Your task to perform on an android device: Go to Google maps Image 0: 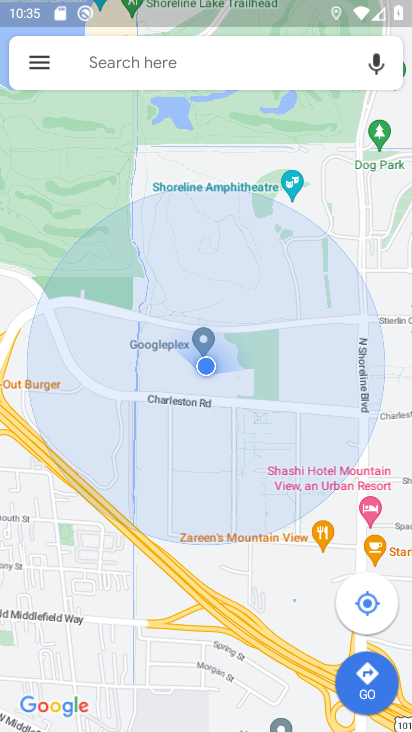
Step 0: press home button
Your task to perform on an android device: Go to Google maps Image 1: 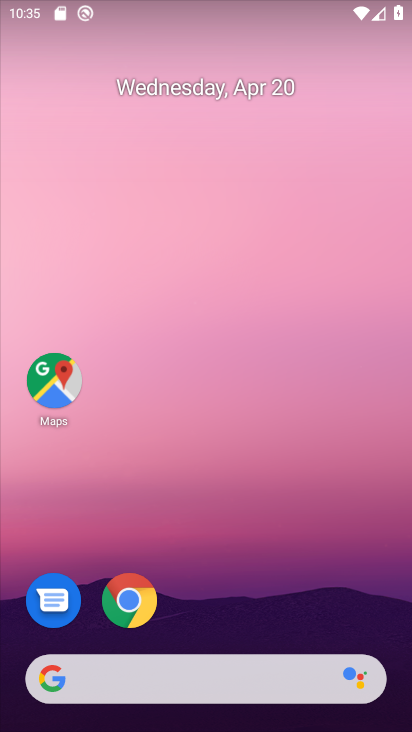
Step 1: click (44, 377)
Your task to perform on an android device: Go to Google maps Image 2: 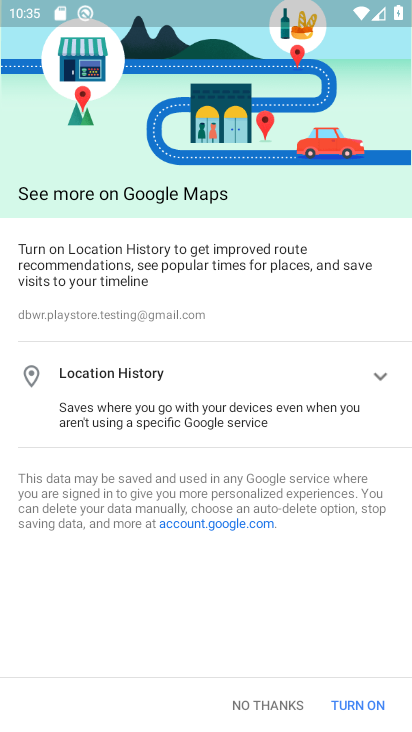
Step 2: click (280, 700)
Your task to perform on an android device: Go to Google maps Image 3: 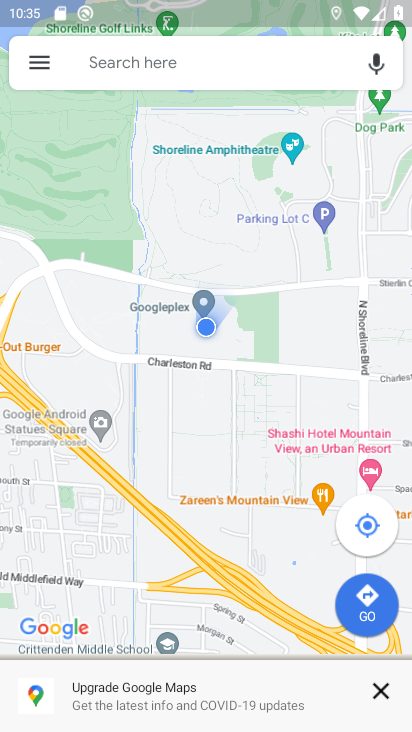
Step 3: click (208, 53)
Your task to perform on an android device: Go to Google maps Image 4: 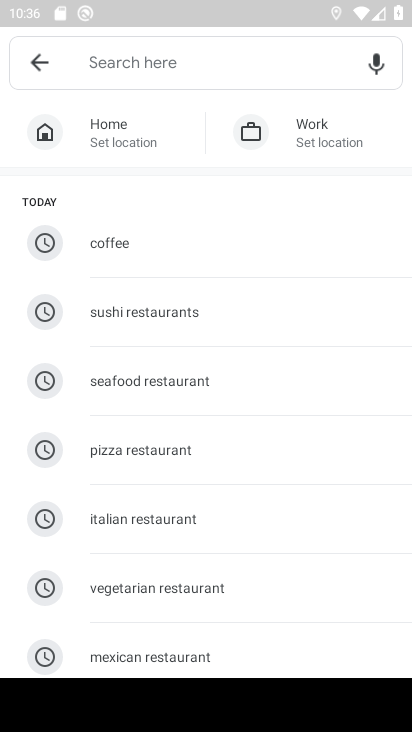
Step 4: task complete